Your task to perform on an android device: find photos in the google photos app Image 0: 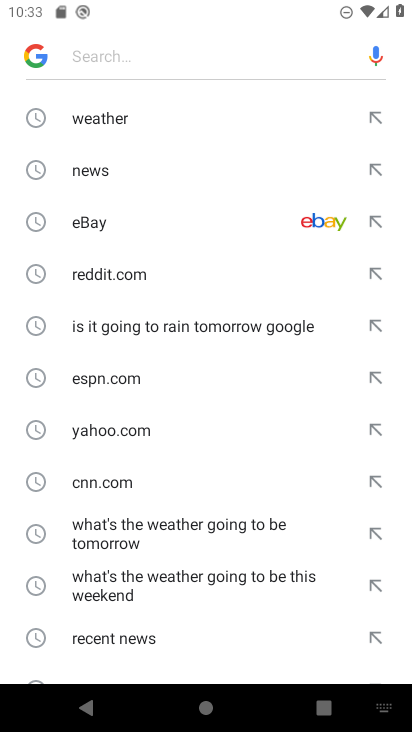
Step 0: press home button
Your task to perform on an android device: find photos in the google photos app Image 1: 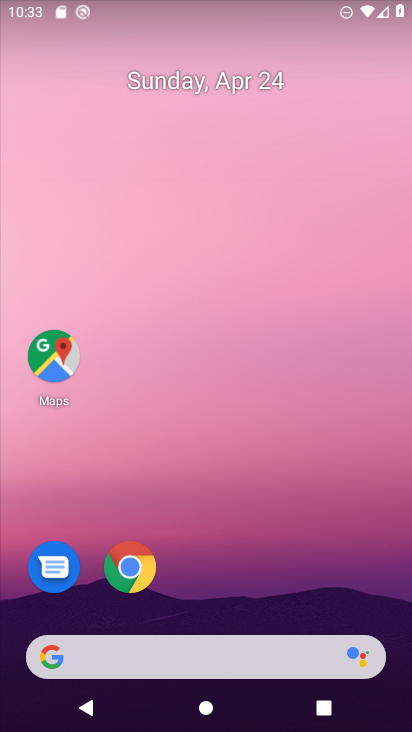
Step 1: drag from (157, 599) to (155, 206)
Your task to perform on an android device: find photos in the google photos app Image 2: 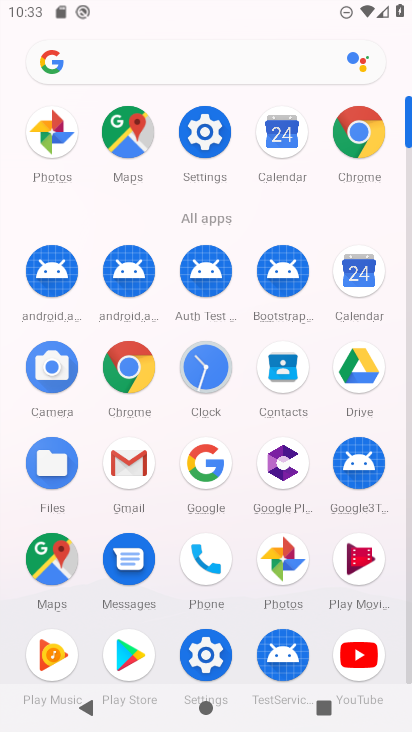
Step 2: click (275, 546)
Your task to perform on an android device: find photos in the google photos app Image 3: 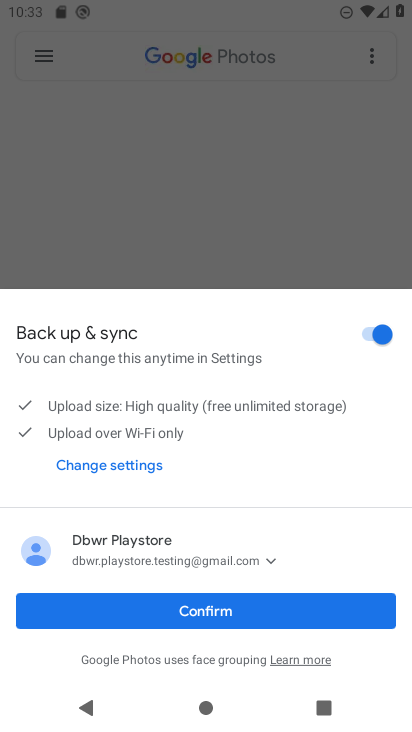
Step 3: click (266, 612)
Your task to perform on an android device: find photos in the google photos app Image 4: 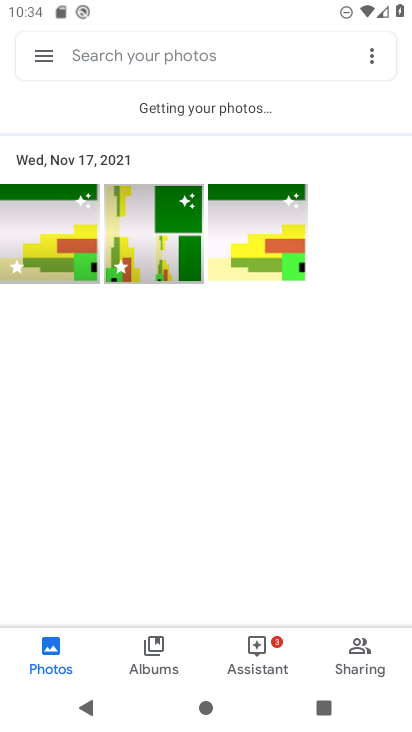
Step 4: task complete